Your task to perform on an android device: Go to notification settings Image 0: 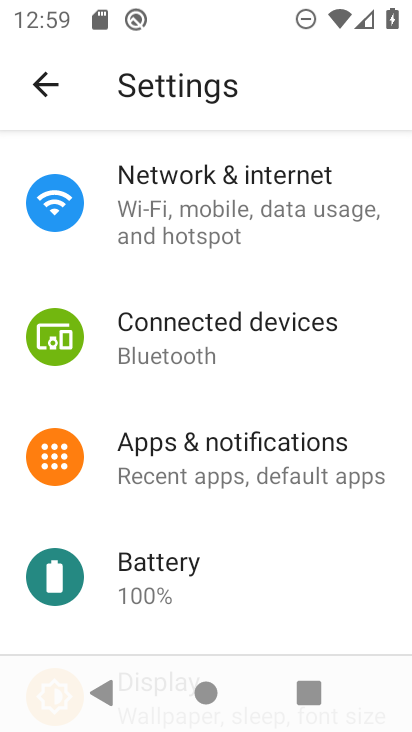
Step 0: click (129, 475)
Your task to perform on an android device: Go to notification settings Image 1: 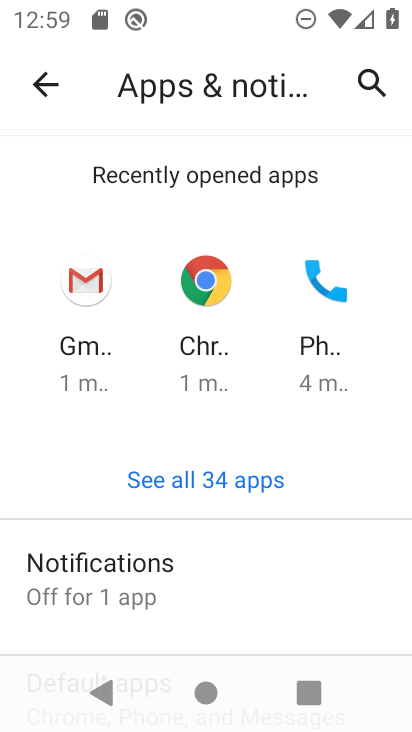
Step 1: click (140, 580)
Your task to perform on an android device: Go to notification settings Image 2: 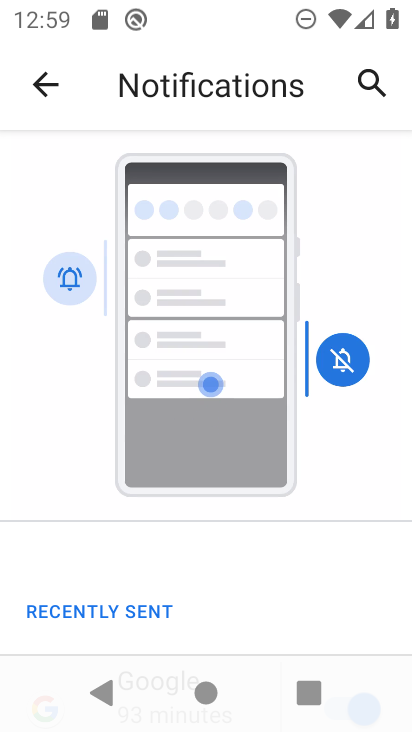
Step 2: task complete